Your task to perform on an android device: Go to accessibility settings Image 0: 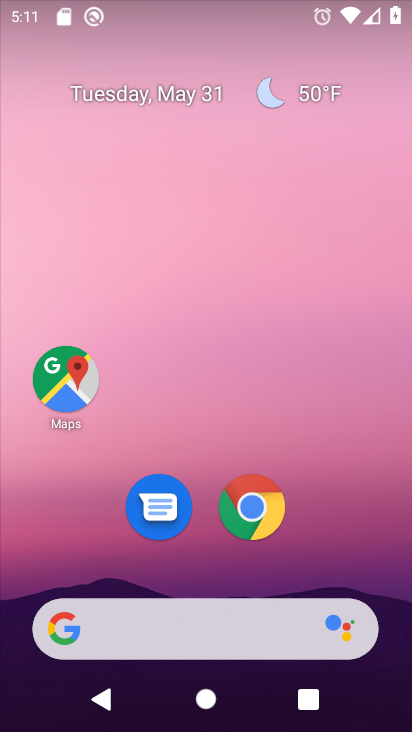
Step 0: drag from (252, 403) to (226, 18)
Your task to perform on an android device: Go to accessibility settings Image 1: 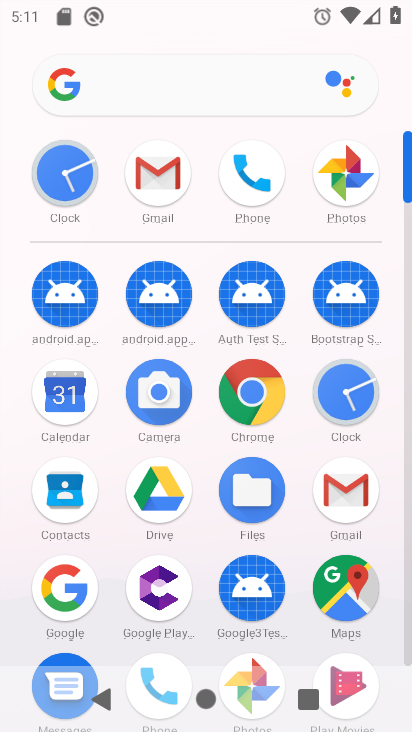
Step 1: drag from (216, 476) to (223, 166)
Your task to perform on an android device: Go to accessibility settings Image 2: 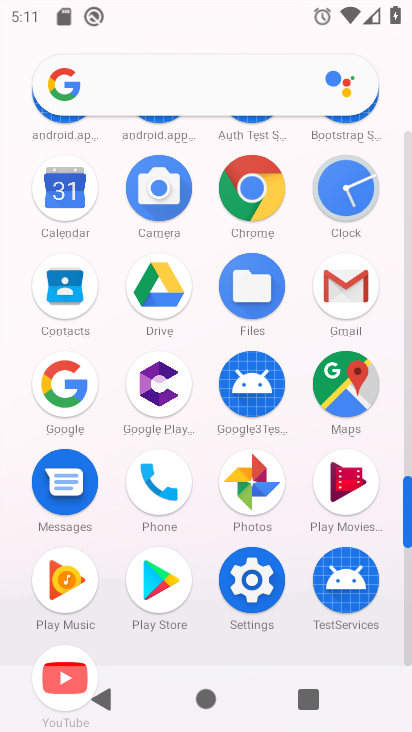
Step 2: click (251, 575)
Your task to perform on an android device: Go to accessibility settings Image 3: 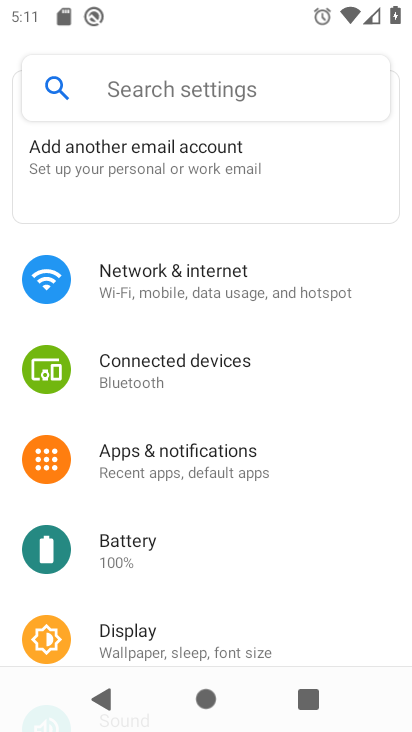
Step 3: drag from (245, 577) to (210, 1)
Your task to perform on an android device: Go to accessibility settings Image 4: 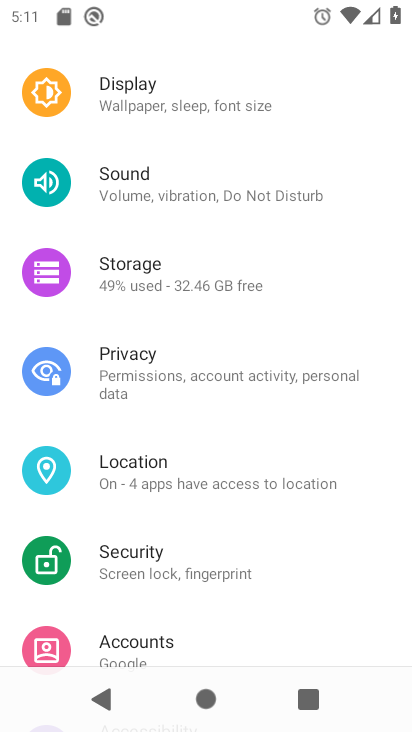
Step 4: drag from (239, 499) to (213, 6)
Your task to perform on an android device: Go to accessibility settings Image 5: 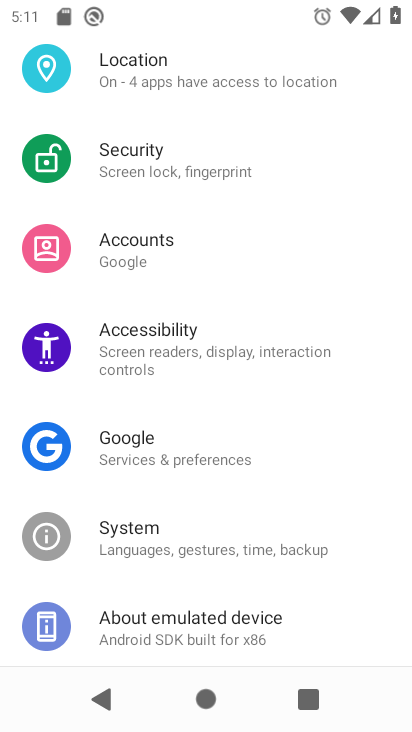
Step 5: click (241, 351)
Your task to perform on an android device: Go to accessibility settings Image 6: 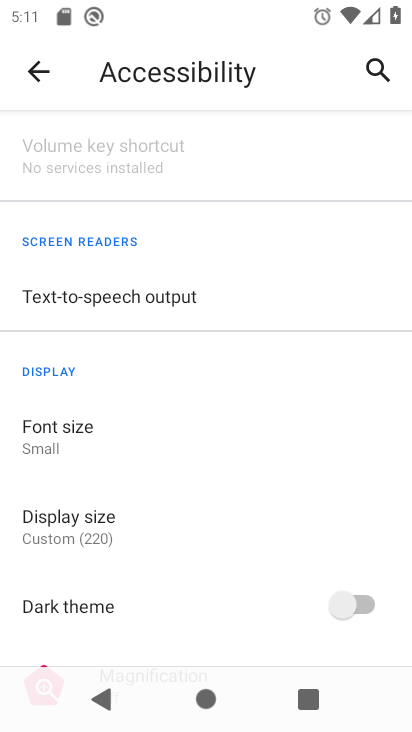
Step 6: task complete